Your task to perform on an android device: Open the map Image 0: 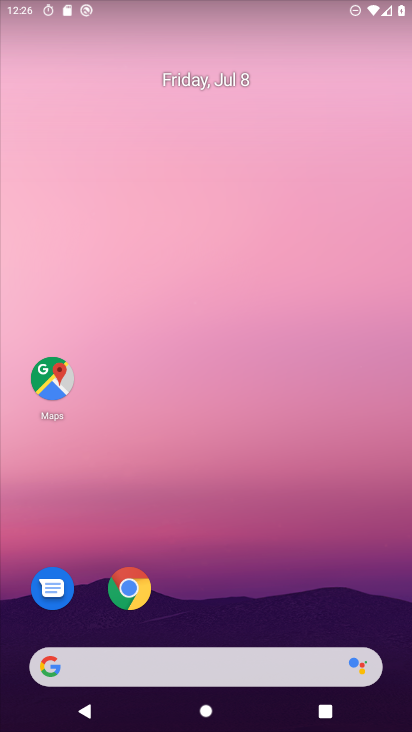
Step 0: drag from (232, 581) to (225, 68)
Your task to perform on an android device: Open the map Image 1: 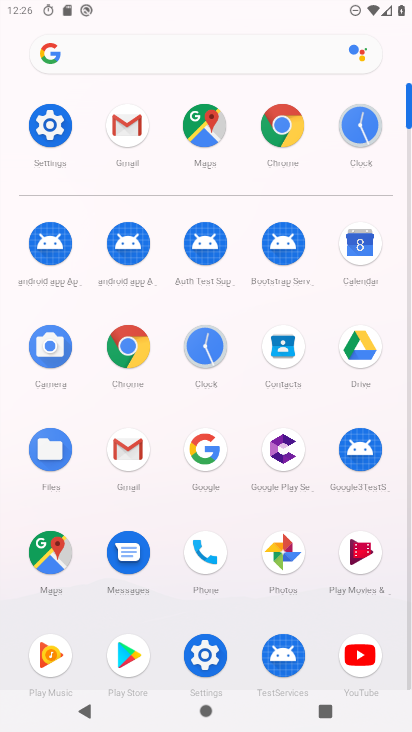
Step 1: click (207, 122)
Your task to perform on an android device: Open the map Image 2: 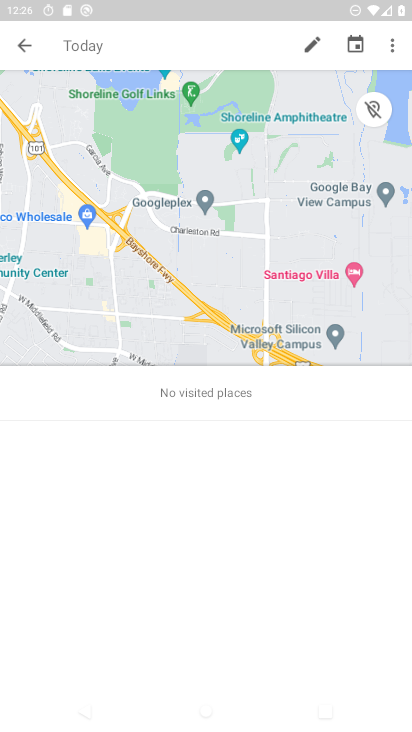
Step 2: task complete